Your task to perform on an android device: toggle improve location accuracy Image 0: 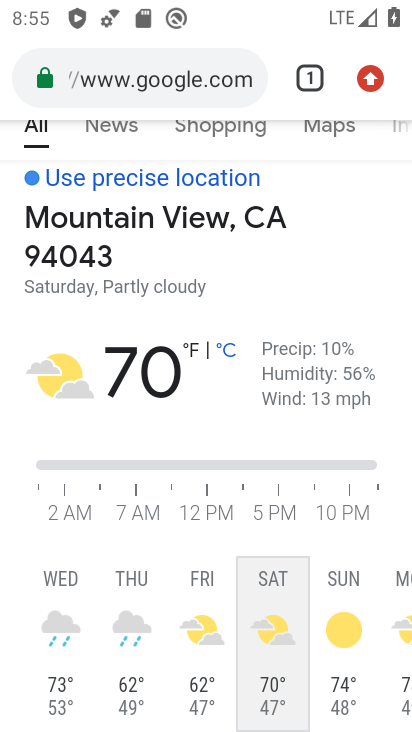
Step 0: press home button
Your task to perform on an android device: toggle improve location accuracy Image 1: 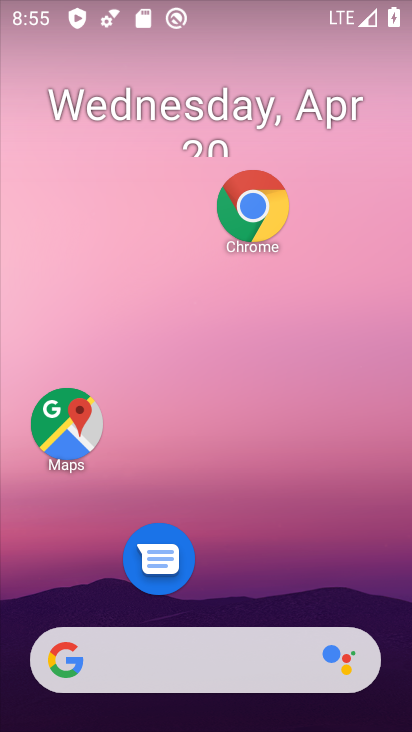
Step 1: drag from (231, 594) to (185, 203)
Your task to perform on an android device: toggle improve location accuracy Image 2: 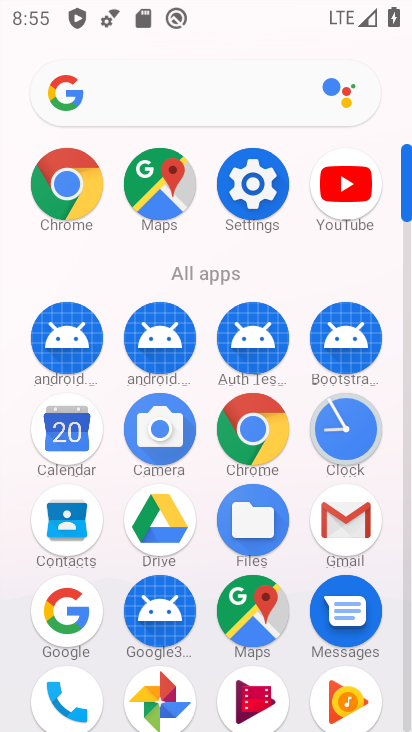
Step 2: click (261, 195)
Your task to perform on an android device: toggle improve location accuracy Image 3: 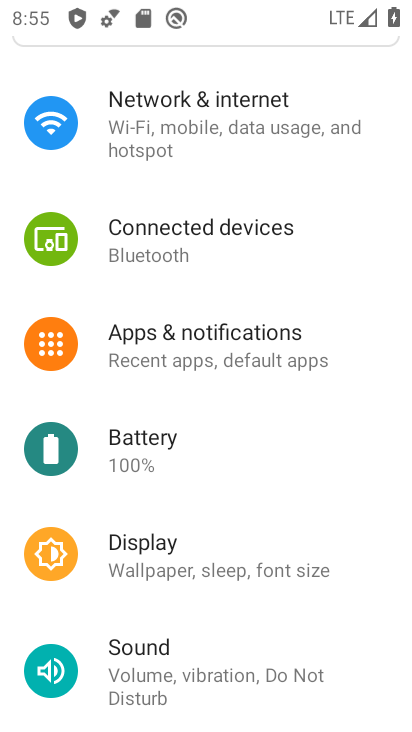
Step 3: drag from (323, 631) to (294, 252)
Your task to perform on an android device: toggle improve location accuracy Image 4: 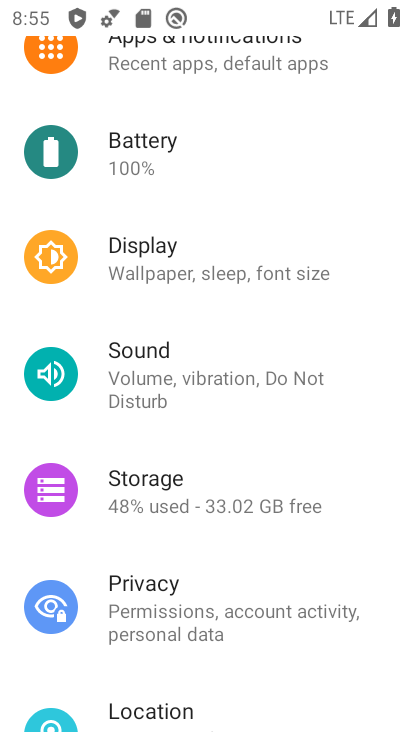
Step 4: click (176, 709)
Your task to perform on an android device: toggle improve location accuracy Image 5: 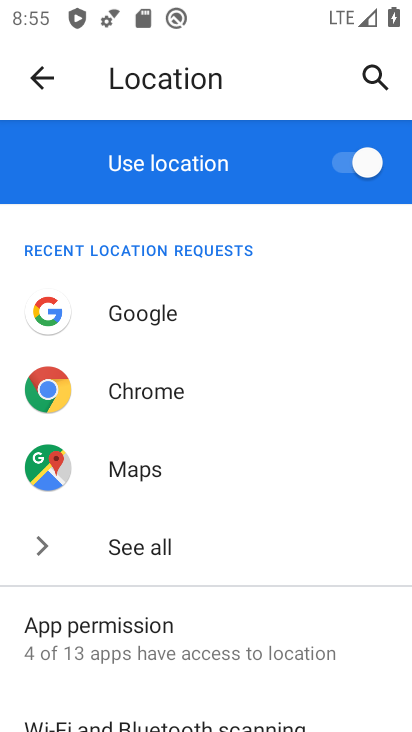
Step 5: drag from (258, 622) to (256, 316)
Your task to perform on an android device: toggle improve location accuracy Image 6: 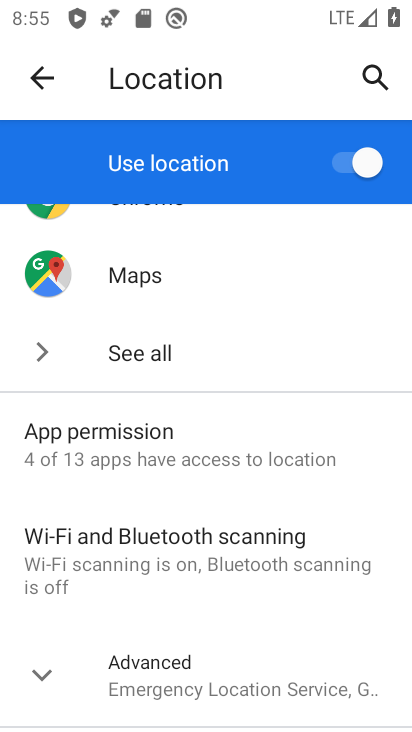
Step 6: click (46, 676)
Your task to perform on an android device: toggle improve location accuracy Image 7: 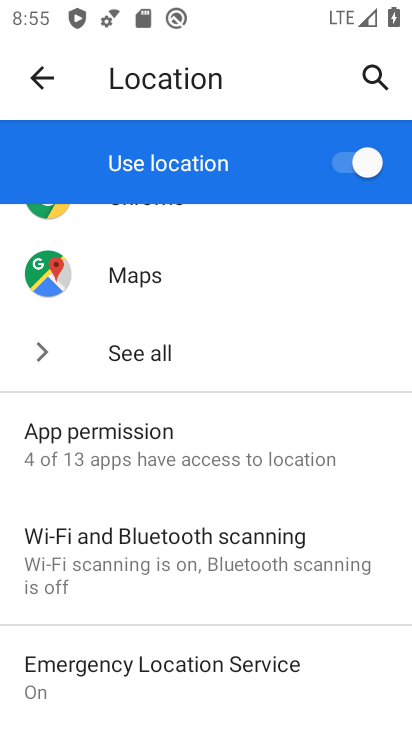
Step 7: drag from (191, 652) to (215, 290)
Your task to perform on an android device: toggle improve location accuracy Image 8: 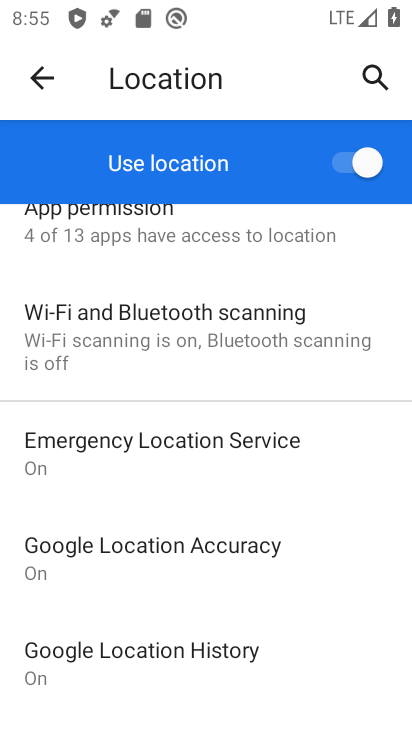
Step 8: click (178, 558)
Your task to perform on an android device: toggle improve location accuracy Image 9: 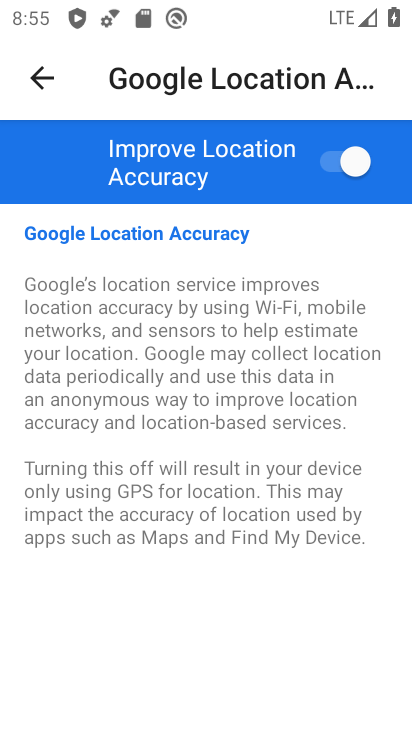
Step 9: click (345, 154)
Your task to perform on an android device: toggle improve location accuracy Image 10: 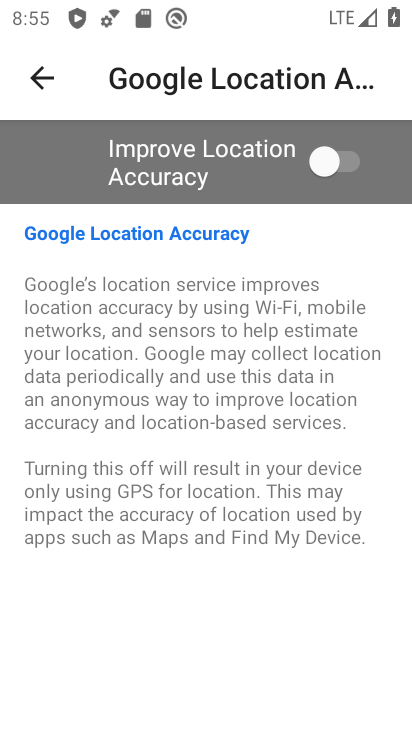
Step 10: task complete